Your task to perform on an android device: Go to CNN.com Image 0: 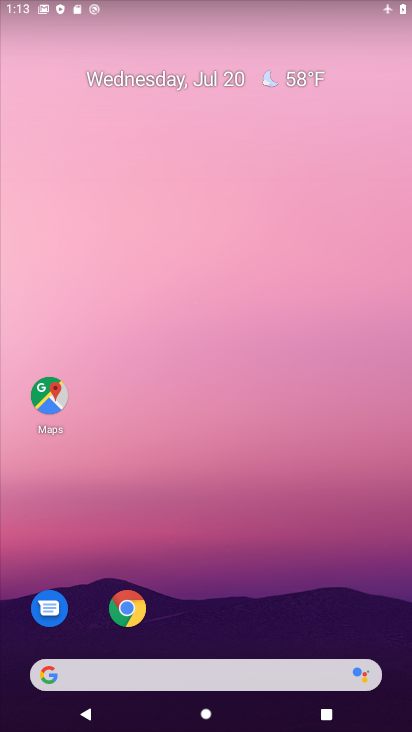
Step 0: drag from (253, 668) to (253, 443)
Your task to perform on an android device: Go to CNN.com Image 1: 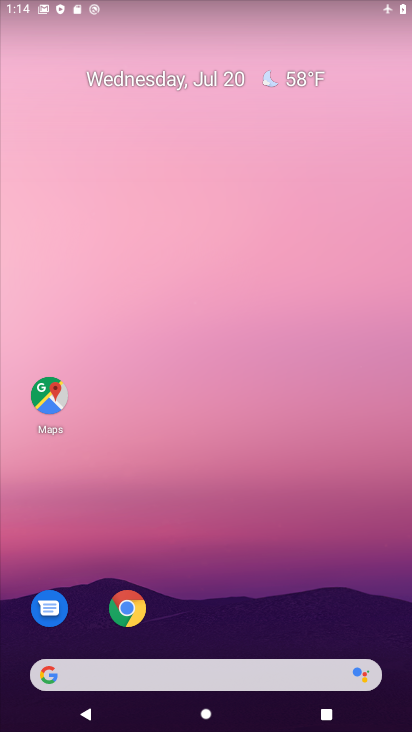
Step 1: drag from (240, 719) to (247, 139)
Your task to perform on an android device: Go to CNN.com Image 2: 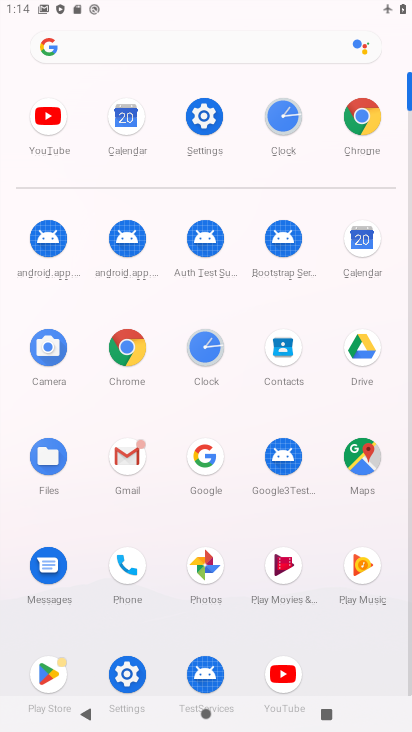
Step 2: click (359, 120)
Your task to perform on an android device: Go to CNN.com Image 3: 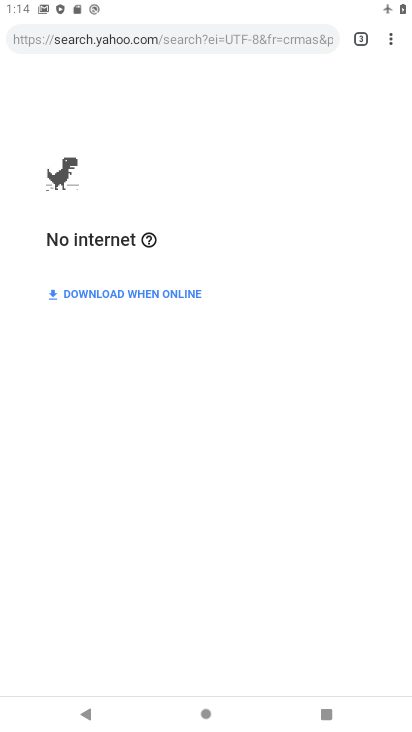
Step 3: click (390, 53)
Your task to perform on an android device: Go to CNN.com Image 4: 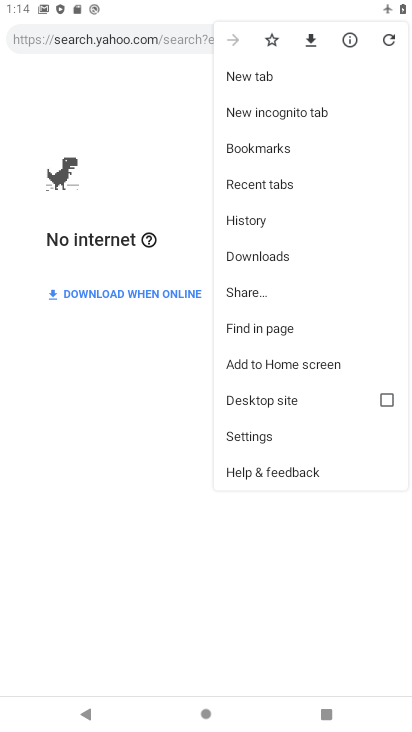
Step 4: click (244, 73)
Your task to perform on an android device: Go to CNN.com Image 5: 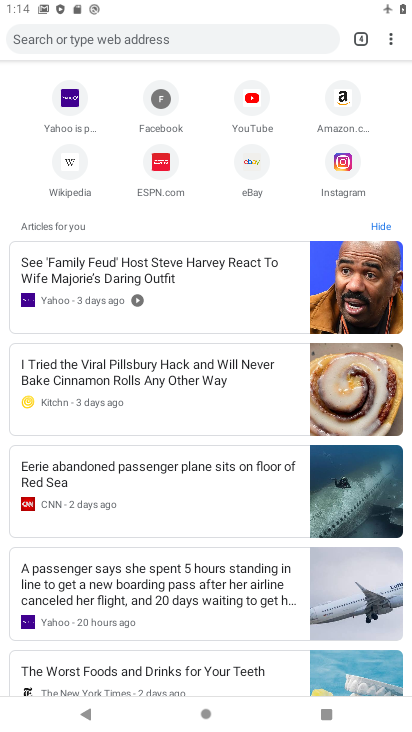
Step 5: click (229, 44)
Your task to perform on an android device: Go to CNN.com Image 6: 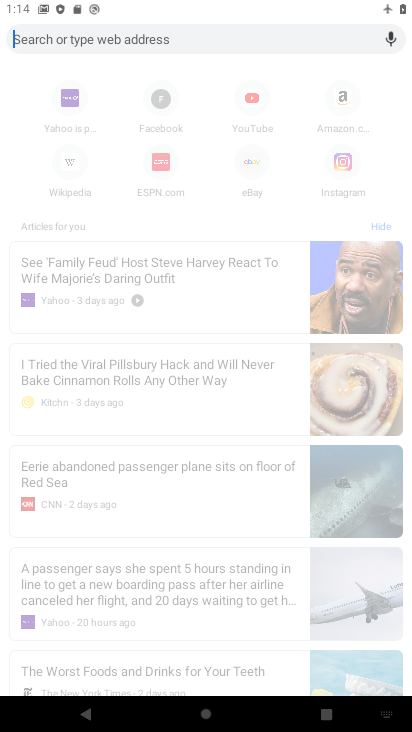
Step 6: type "CNN.com"
Your task to perform on an android device: Go to CNN.com Image 7: 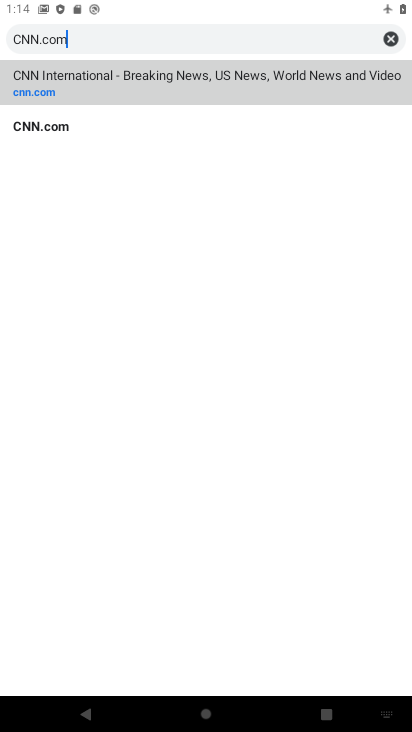
Step 7: click (134, 84)
Your task to perform on an android device: Go to CNN.com Image 8: 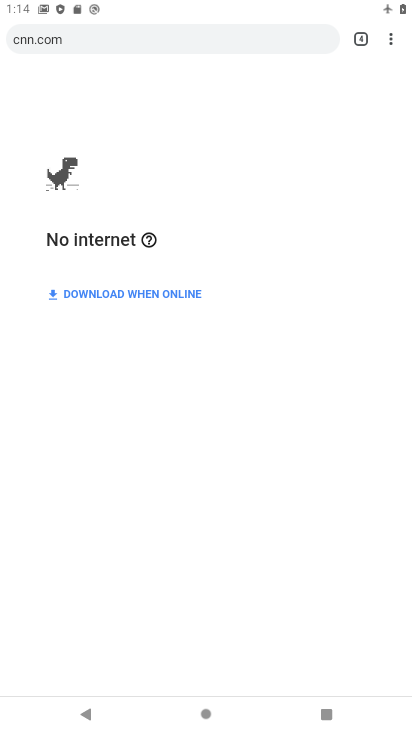
Step 8: task complete